Your task to perform on an android device: Open calendar and show me the fourth week of next month Image 0: 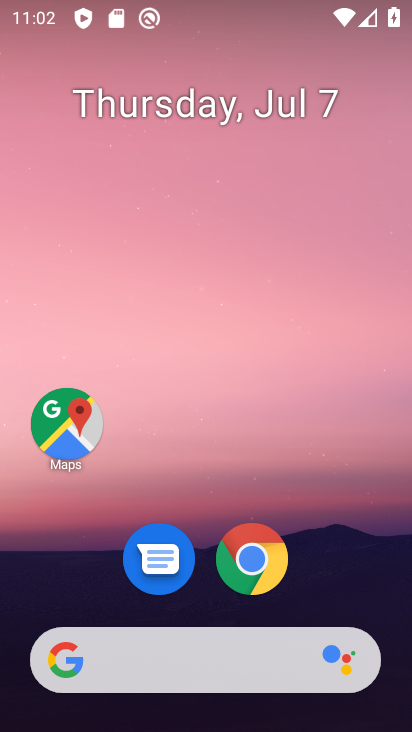
Step 0: click (411, 492)
Your task to perform on an android device: Open calendar and show me the fourth week of next month Image 1: 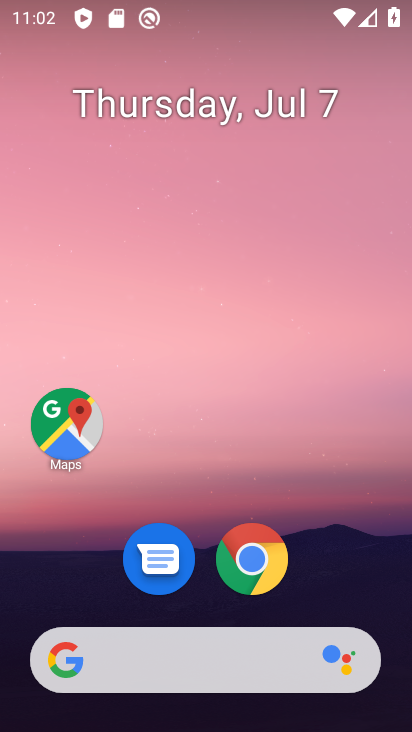
Step 1: drag from (348, 574) to (346, 206)
Your task to perform on an android device: Open calendar and show me the fourth week of next month Image 2: 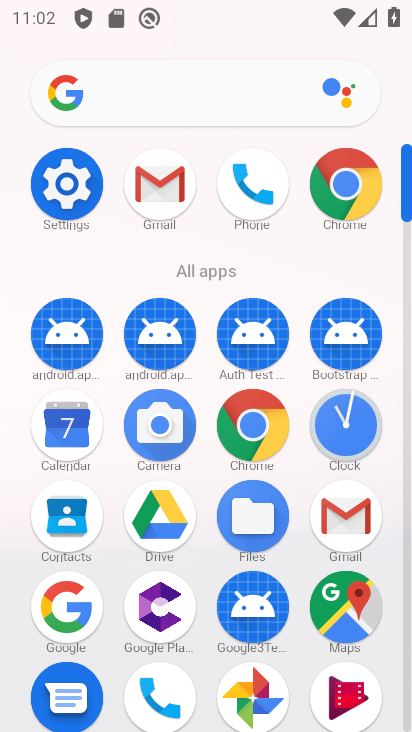
Step 2: click (62, 423)
Your task to perform on an android device: Open calendar and show me the fourth week of next month Image 3: 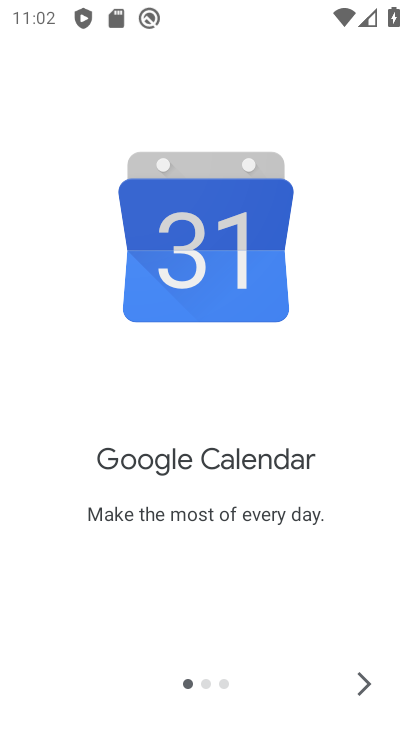
Step 3: click (355, 693)
Your task to perform on an android device: Open calendar and show me the fourth week of next month Image 4: 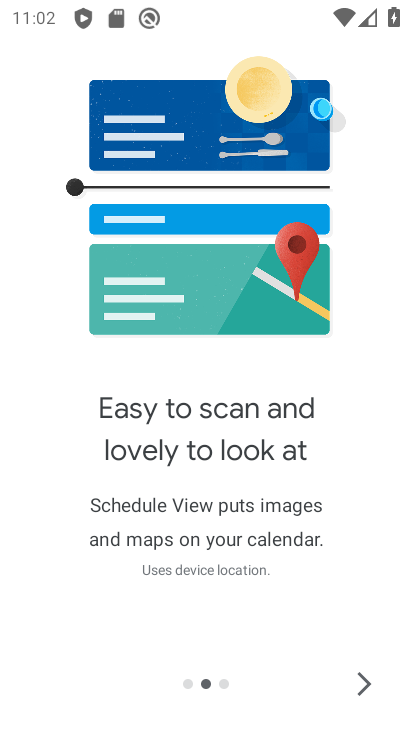
Step 4: click (365, 687)
Your task to perform on an android device: Open calendar and show me the fourth week of next month Image 5: 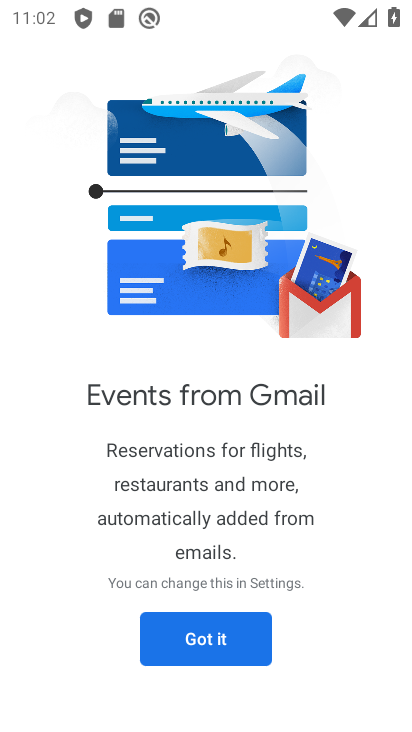
Step 5: click (246, 651)
Your task to perform on an android device: Open calendar and show me the fourth week of next month Image 6: 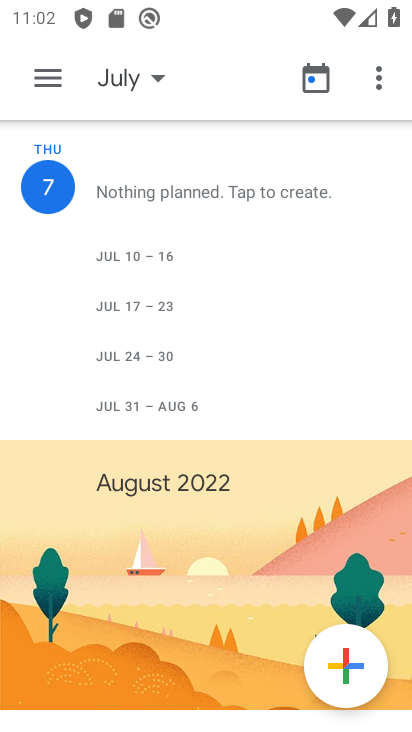
Step 6: click (153, 79)
Your task to perform on an android device: Open calendar and show me the fourth week of next month Image 7: 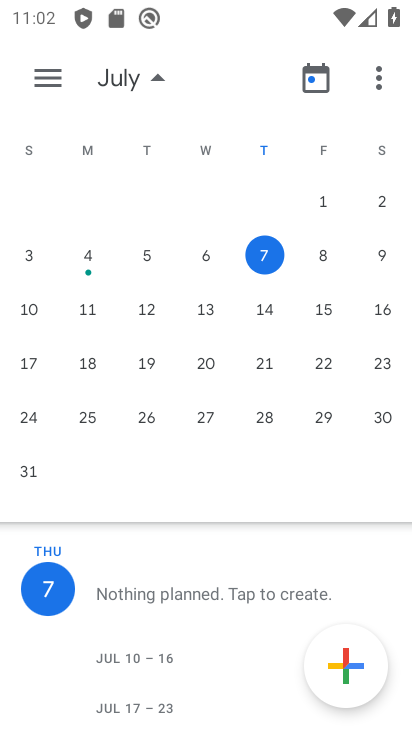
Step 7: drag from (383, 222) to (39, 191)
Your task to perform on an android device: Open calendar and show me the fourth week of next month Image 8: 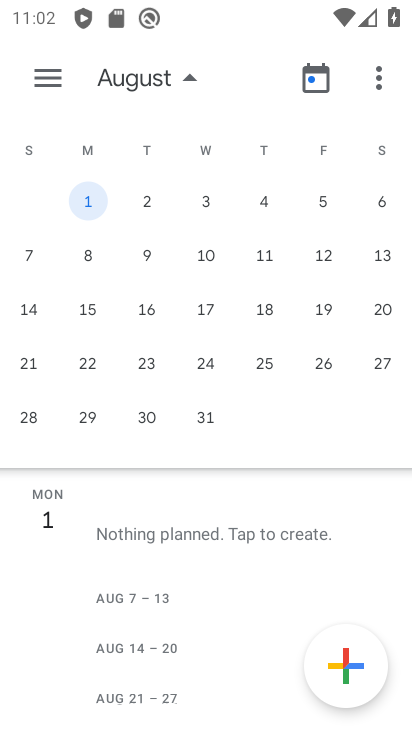
Step 8: click (96, 362)
Your task to perform on an android device: Open calendar and show me the fourth week of next month Image 9: 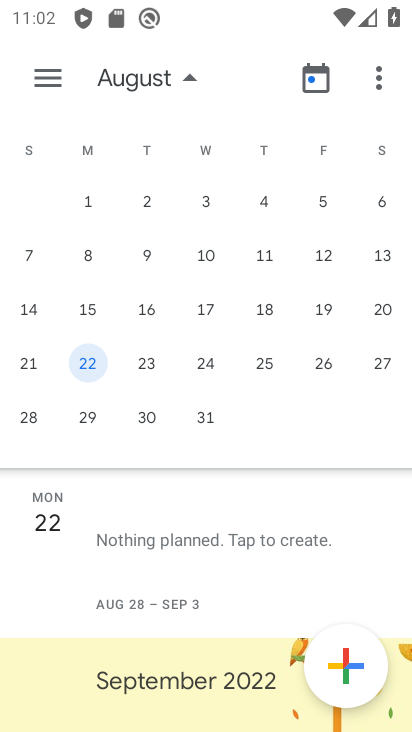
Step 9: task complete